Your task to perform on an android device: turn on notifications settings in the gmail app Image 0: 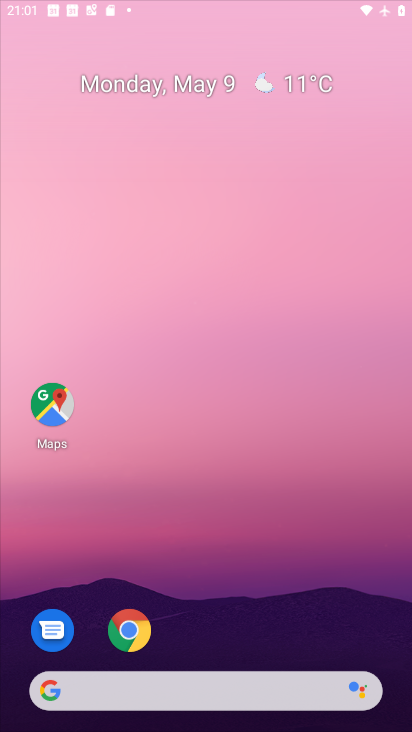
Step 0: click (367, 427)
Your task to perform on an android device: turn on notifications settings in the gmail app Image 1: 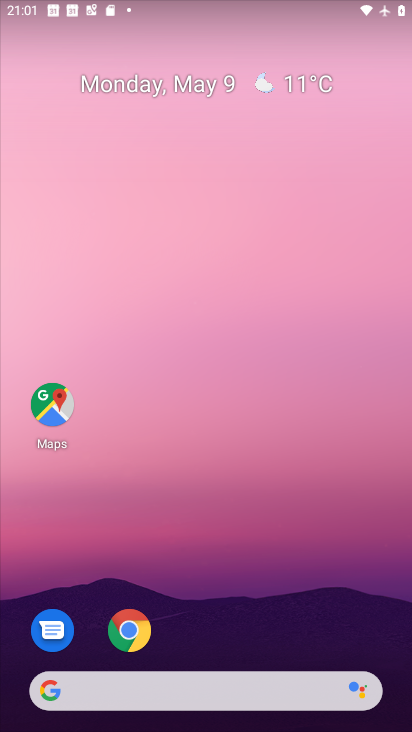
Step 1: drag from (205, 588) to (257, 135)
Your task to perform on an android device: turn on notifications settings in the gmail app Image 2: 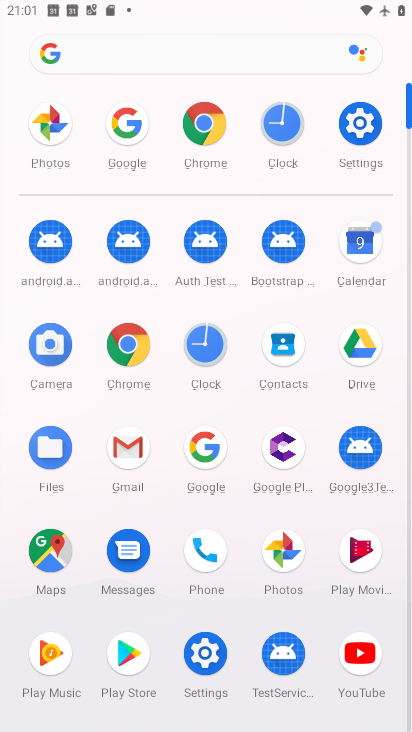
Step 2: click (126, 460)
Your task to perform on an android device: turn on notifications settings in the gmail app Image 3: 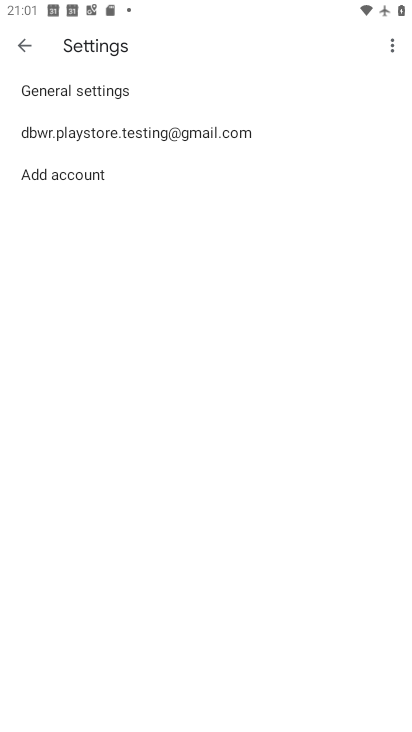
Step 3: click (99, 138)
Your task to perform on an android device: turn on notifications settings in the gmail app Image 4: 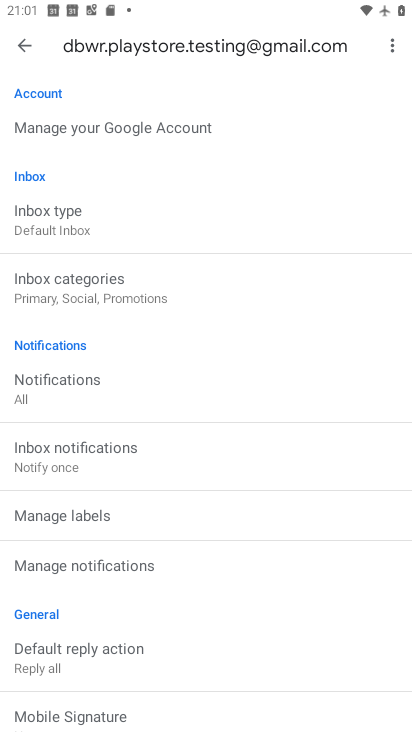
Step 4: click (82, 389)
Your task to perform on an android device: turn on notifications settings in the gmail app Image 5: 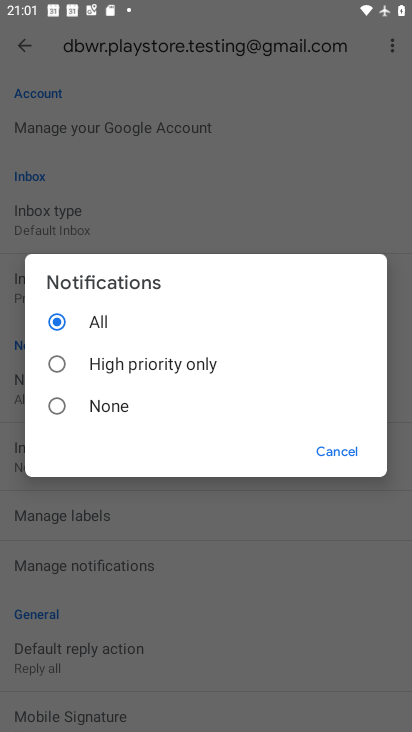
Step 5: click (142, 326)
Your task to perform on an android device: turn on notifications settings in the gmail app Image 6: 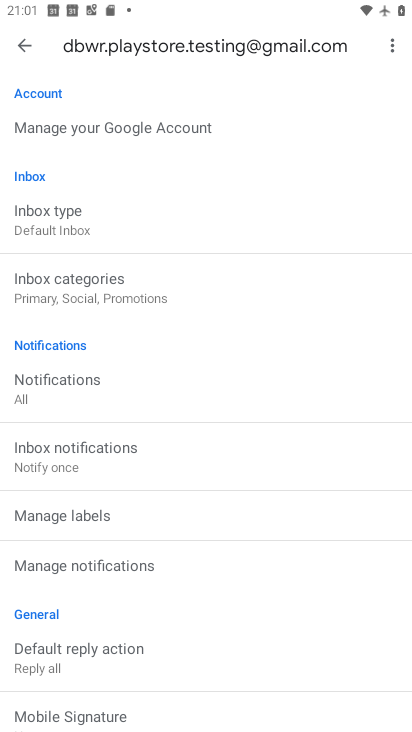
Step 6: task complete